Your task to perform on an android device: Turn on the flashlight Image 0: 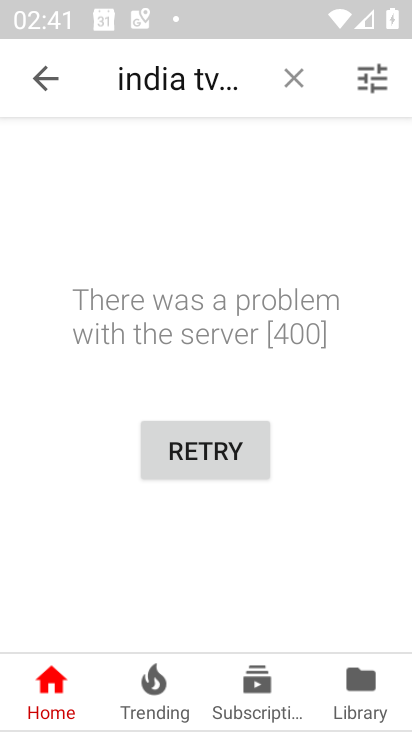
Step 0: press home button
Your task to perform on an android device: Turn on the flashlight Image 1: 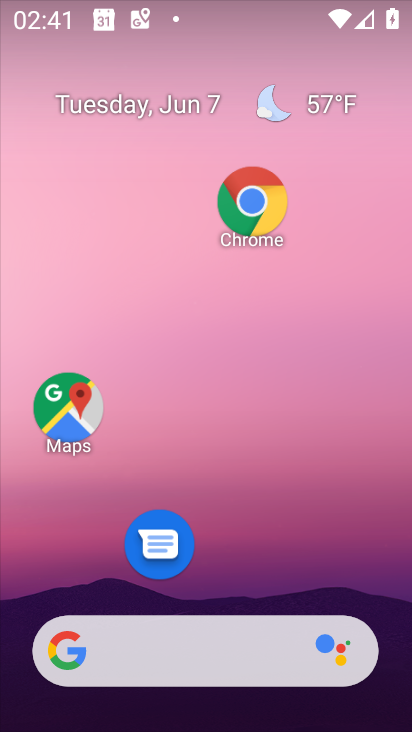
Step 1: drag from (216, 588) to (265, 265)
Your task to perform on an android device: Turn on the flashlight Image 2: 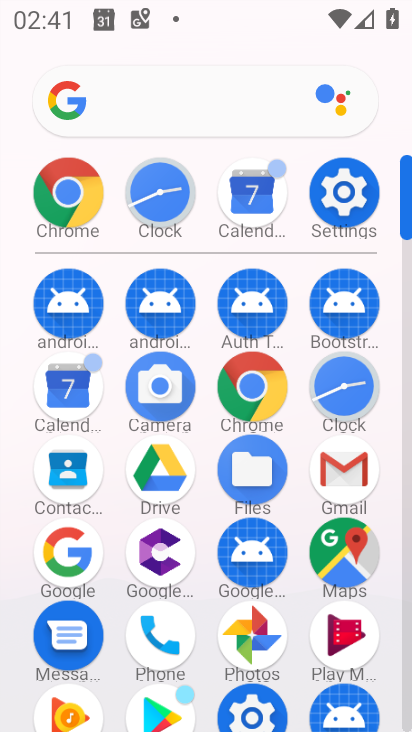
Step 2: click (347, 177)
Your task to perform on an android device: Turn on the flashlight Image 3: 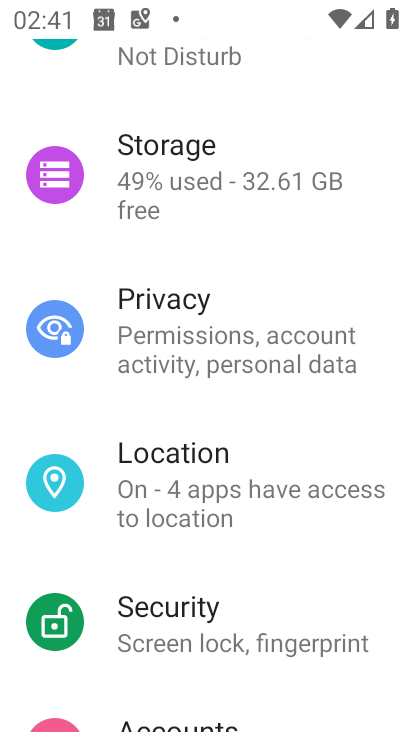
Step 3: task complete